Your task to perform on an android device: turn on location history Image 0: 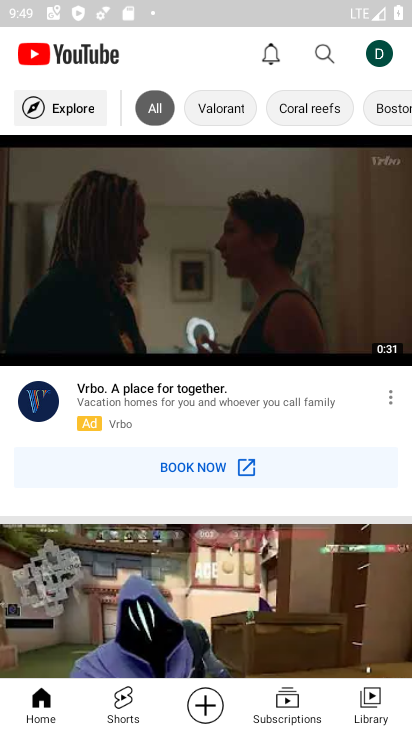
Step 0: press home button
Your task to perform on an android device: turn on location history Image 1: 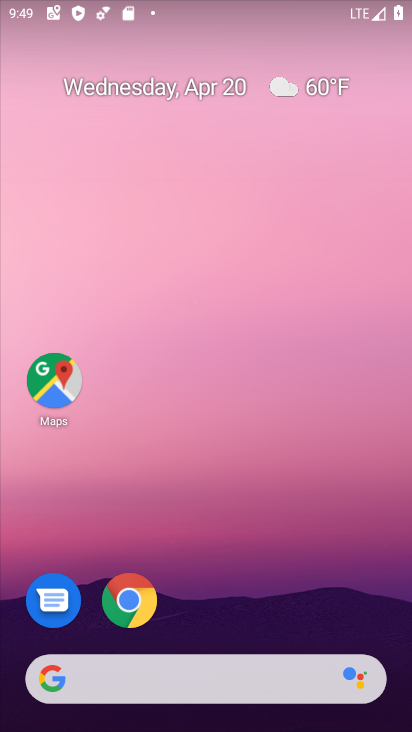
Step 1: drag from (206, 604) to (280, 95)
Your task to perform on an android device: turn on location history Image 2: 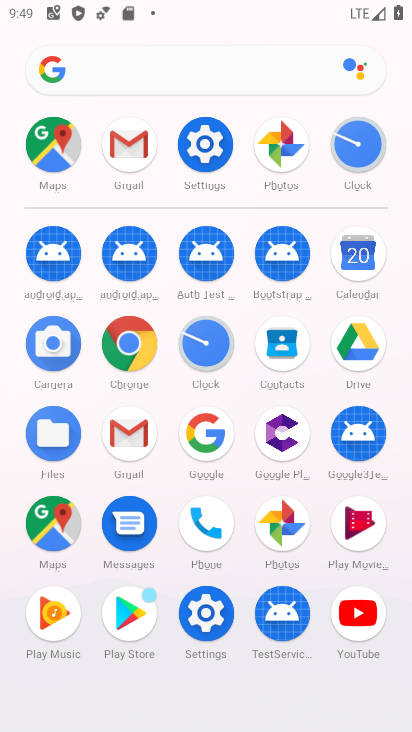
Step 2: click (217, 636)
Your task to perform on an android device: turn on location history Image 3: 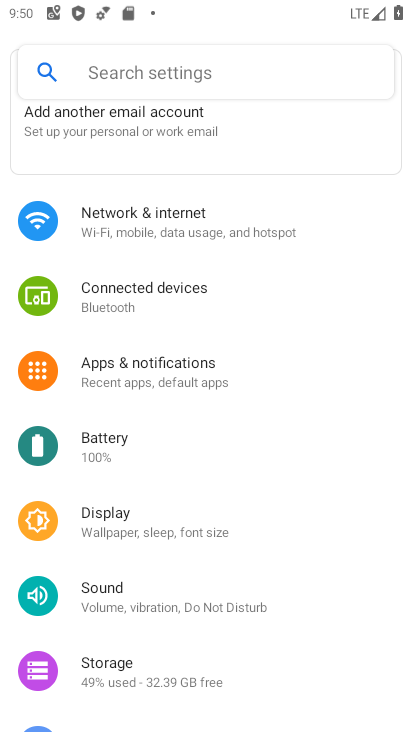
Step 3: drag from (125, 642) to (236, 130)
Your task to perform on an android device: turn on location history Image 4: 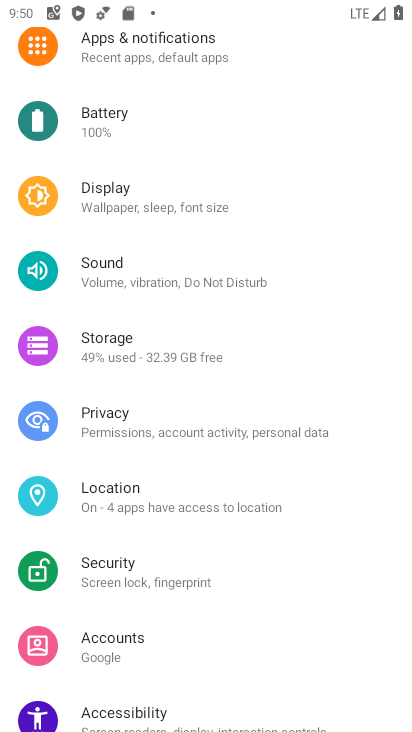
Step 4: click (177, 497)
Your task to perform on an android device: turn on location history Image 5: 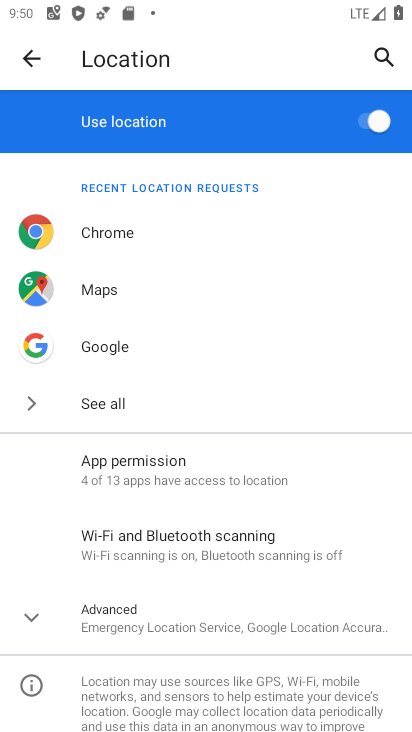
Step 5: click (185, 622)
Your task to perform on an android device: turn on location history Image 6: 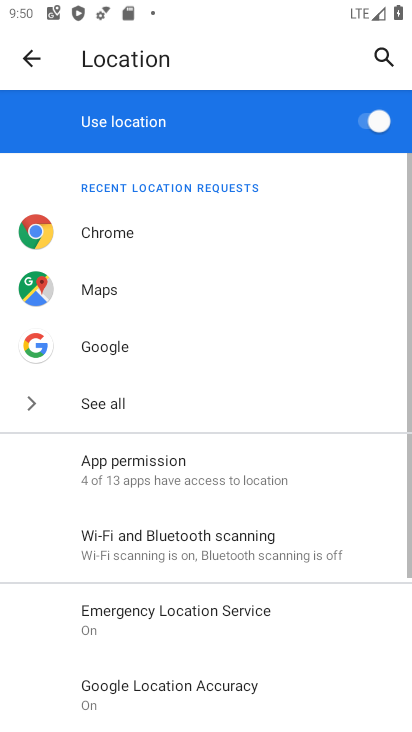
Step 6: drag from (185, 622) to (266, 242)
Your task to perform on an android device: turn on location history Image 7: 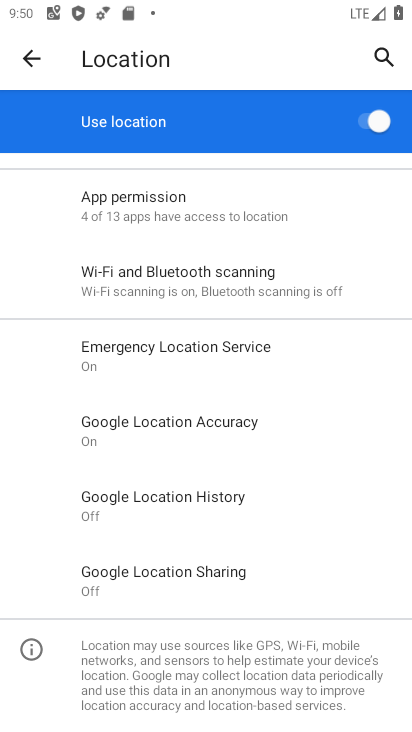
Step 7: click (215, 506)
Your task to perform on an android device: turn on location history Image 8: 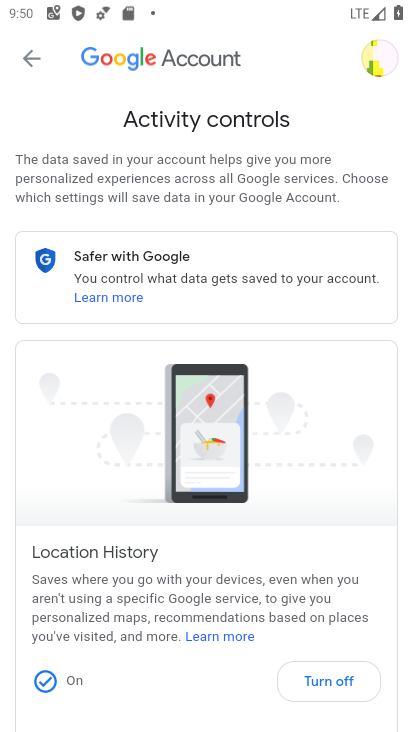
Step 8: click (211, 622)
Your task to perform on an android device: turn on location history Image 9: 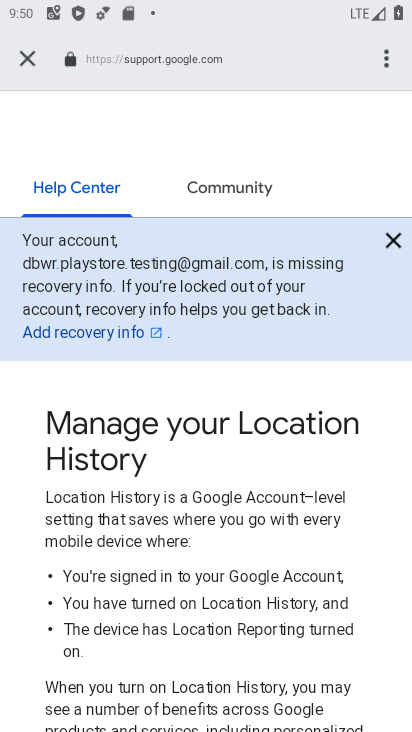
Step 9: task complete